Your task to perform on an android device: Show me recent news Image 0: 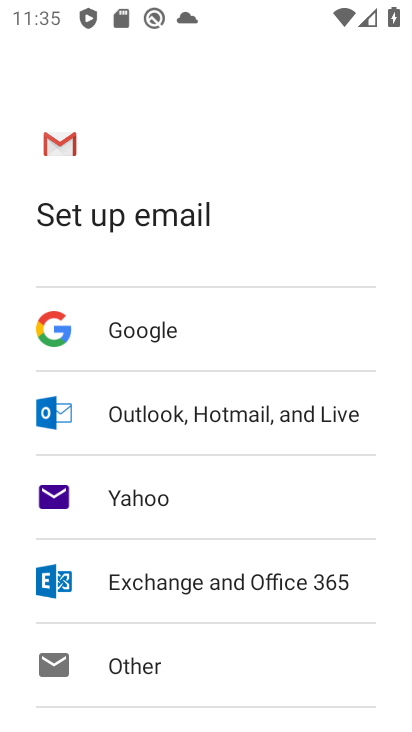
Step 0: press home button
Your task to perform on an android device: Show me recent news Image 1: 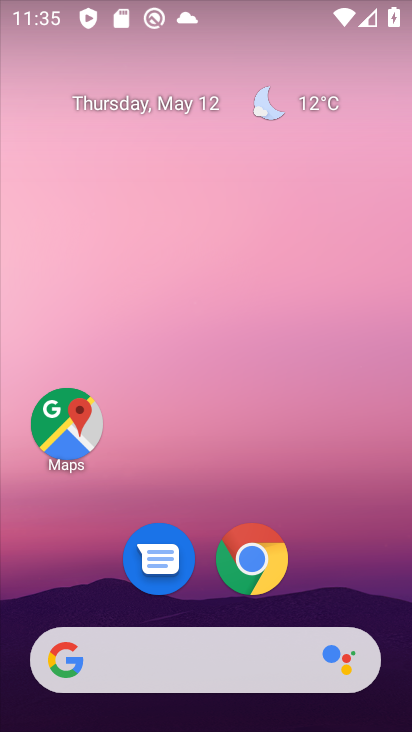
Step 1: task complete